Your task to perform on an android device: toggle airplane mode Image 0: 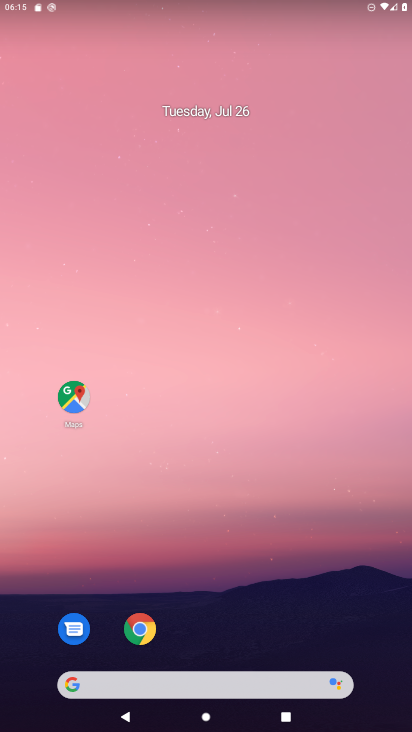
Step 0: drag from (185, 626) to (214, 267)
Your task to perform on an android device: toggle airplane mode Image 1: 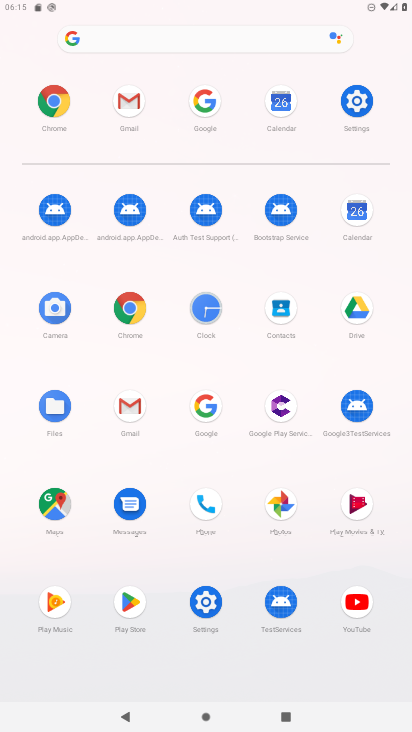
Step 1: click (351, 102)
Your task to perform on an android device: toggle airplane mode Image 2: 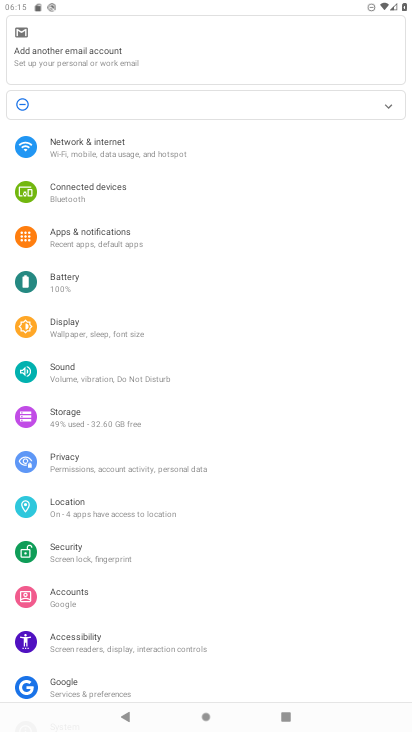
Step 2: click (87, 146)
Your task to perform on an android device: toggle airplane mode Image 3: 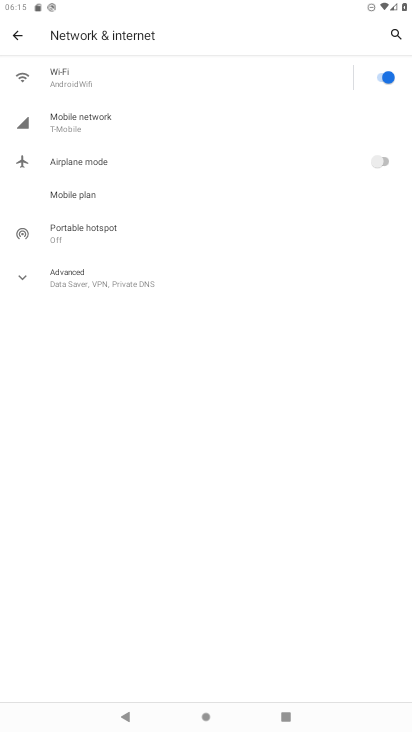
Step 3: click (387, 155)
Your task to perform on an android device: toggle airplane mode Image 4: 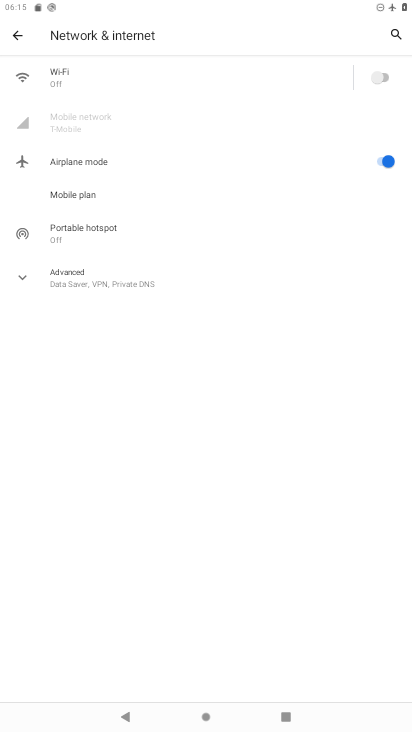
Step 4: task complete